Your task to perform on an android device: Go to notification settings Image 0: 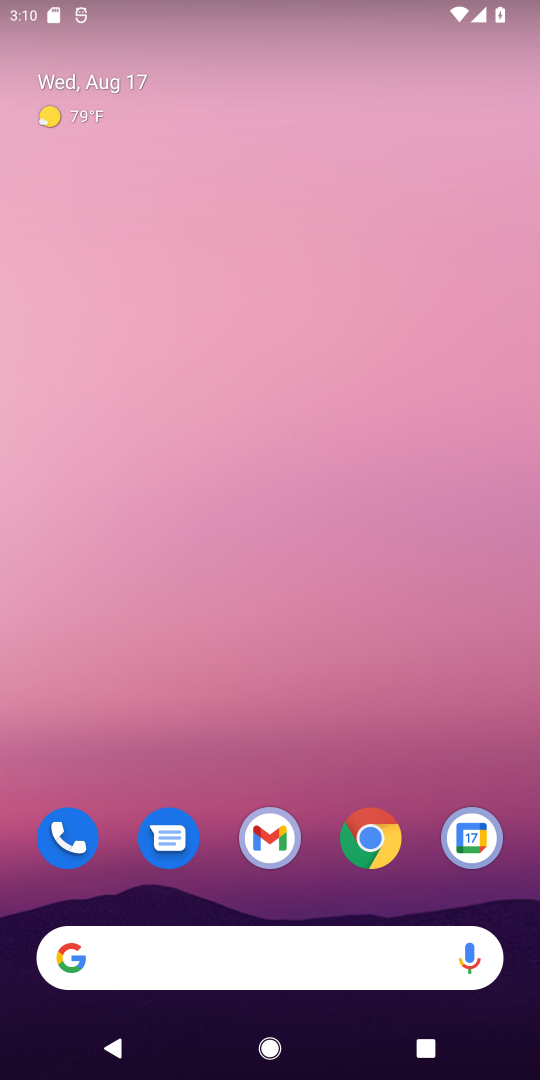
Step 0: drag from (239, 896) to (293, 337)
Your task to perform on an android device: Go to notification settings Image 1: 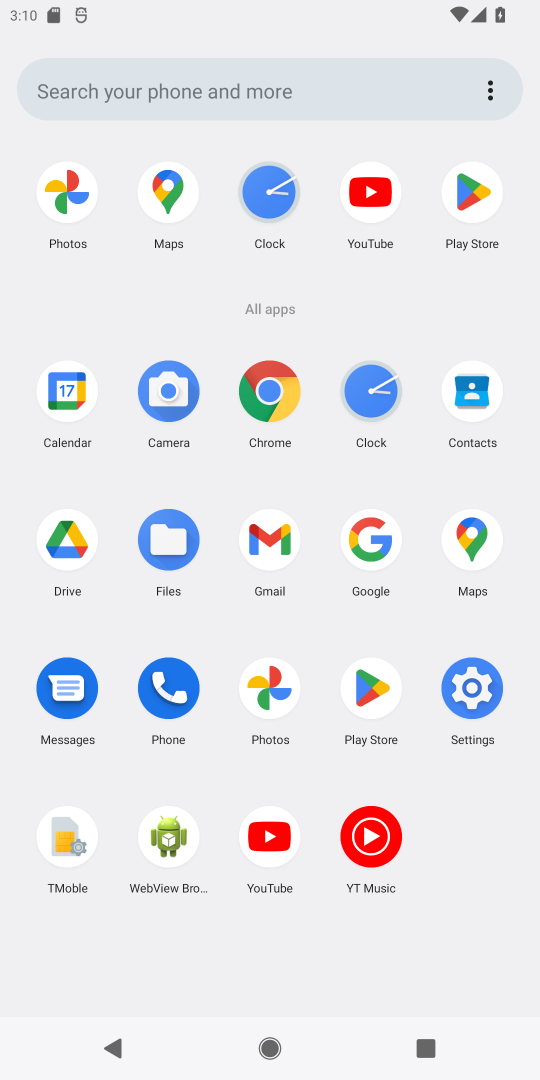
Step 1: click (468, 682)
Your task to perform on an android device: Go to notification settings Image 2: 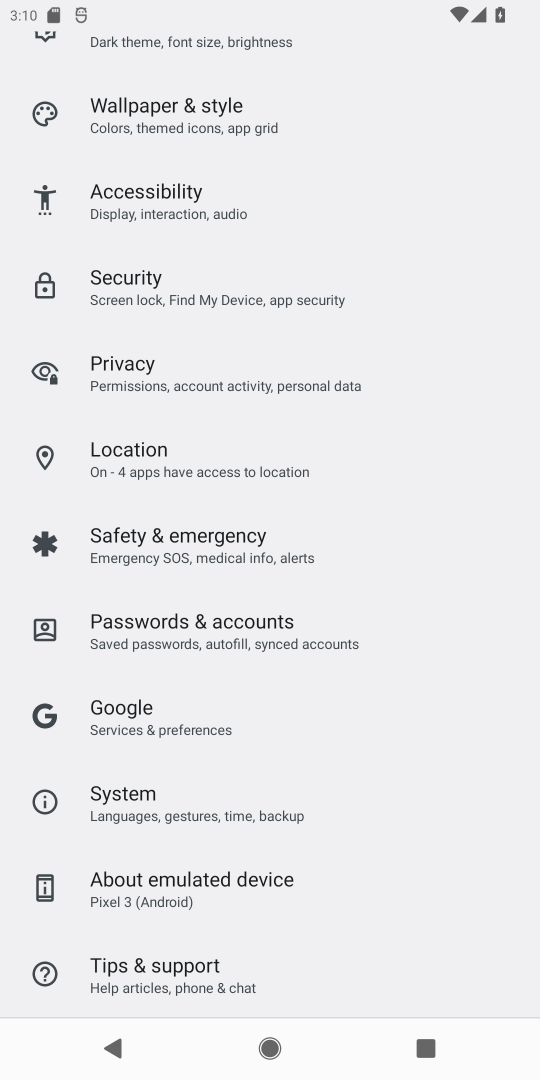
Step 2: drag from (190, 146) to (245, 1003)
Your task to perform on an android device: Go to notification settings Image 3: 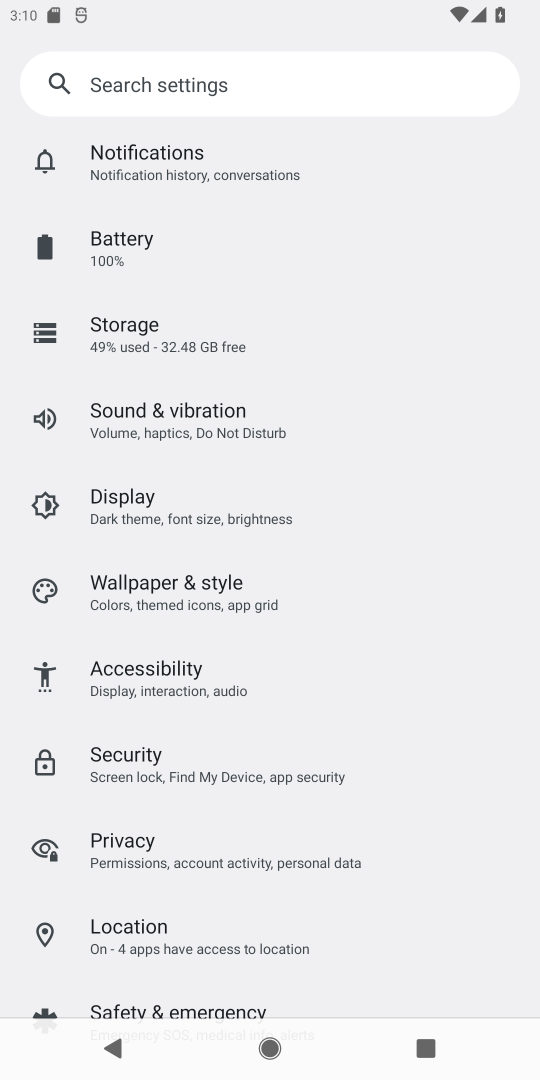
Step 3: click (172, 155)
Your task to perform on an android device: Go to notification settings Image 4: 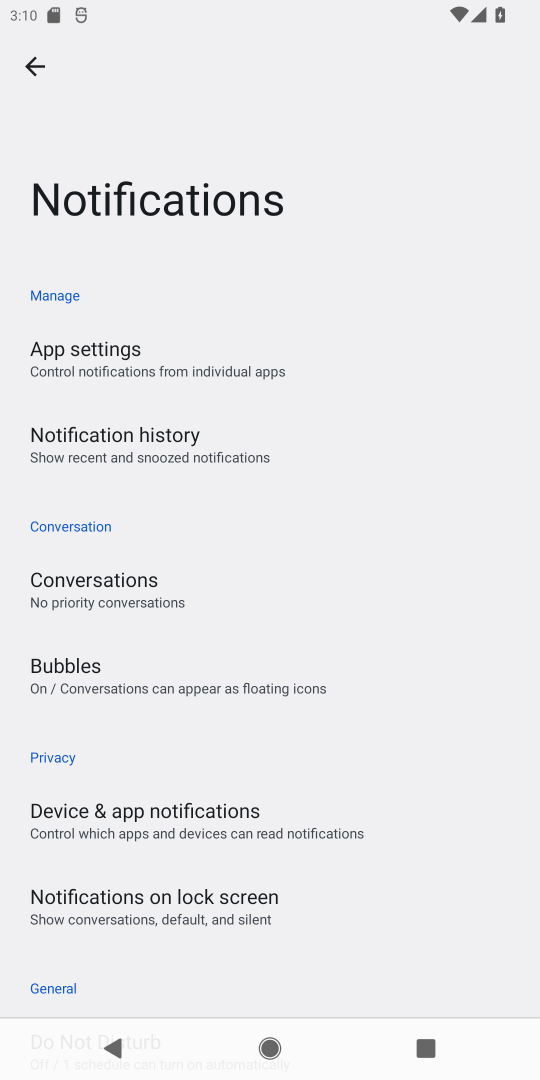
Step 4: task complete